Your task to perform on an android device: toggle data saver in the chrome app Image 0: 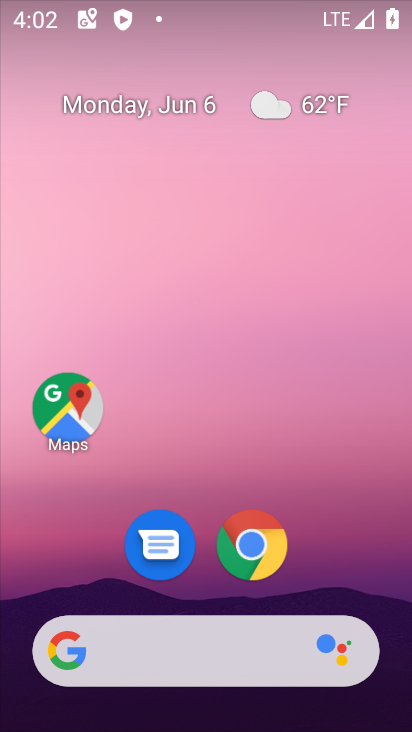
Step 0: click (256, 547)
Your task to perform on an android device: toggle data saver in the chrome app Image 1: 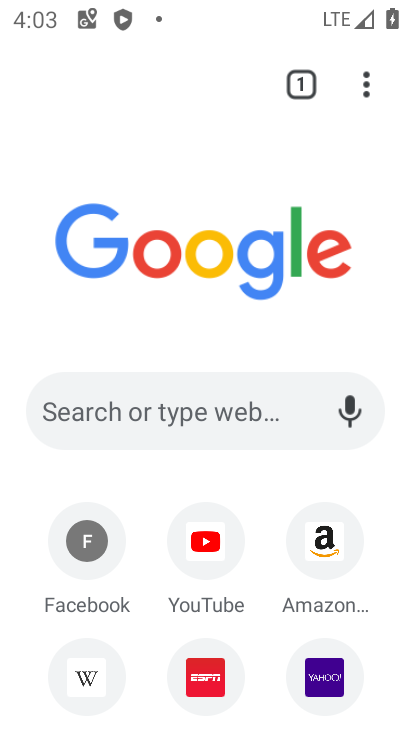
Step 1: click (365, 92)
Your task to perform on an android device: toggle data saver in the chrome app Image 2: 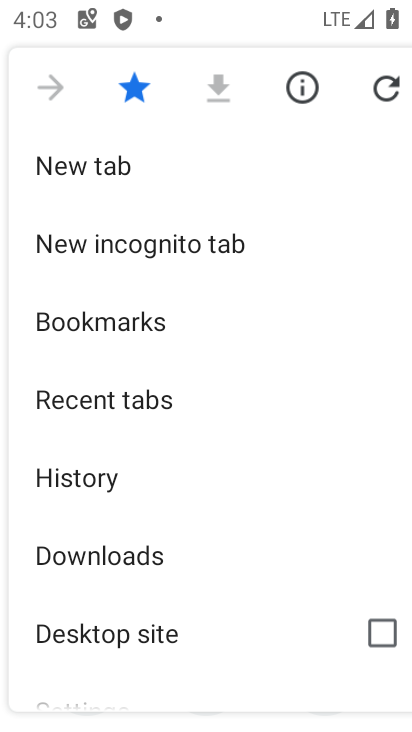
Step 2: drag from (125, 666) to (124, 218)
Your task to perform on an android device: toggle data saver in the chrome app Image 3: 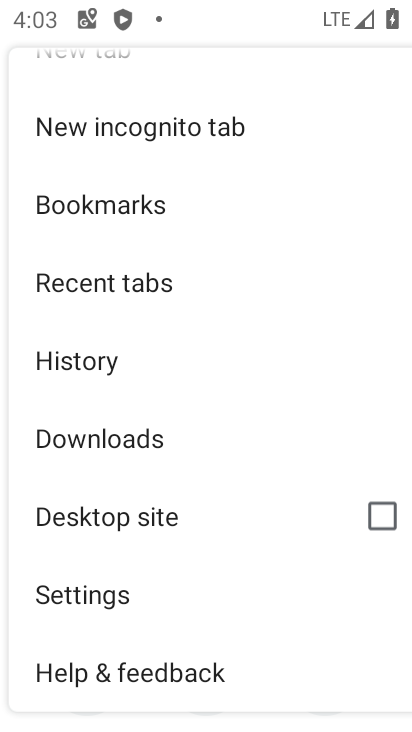
Step 3: click (108, 597)
Your task to perform on an android device: toggle data saver in the chrome app Image 4: 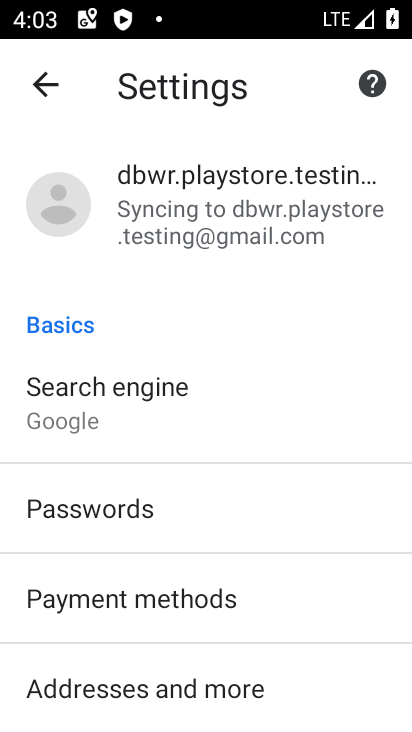
Step 4: drag from (130, 719) to (124, 333)
Your task to perform on an android device: toggle data saver in the chrome app Image 5: 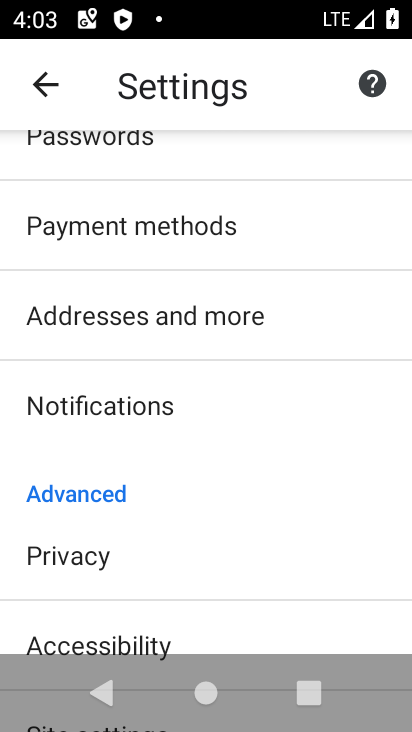
Step 5: drag from (234, 615) to (236, 204)
Your task to perform on an android device: toggle data saver in the chrome app Image 6: 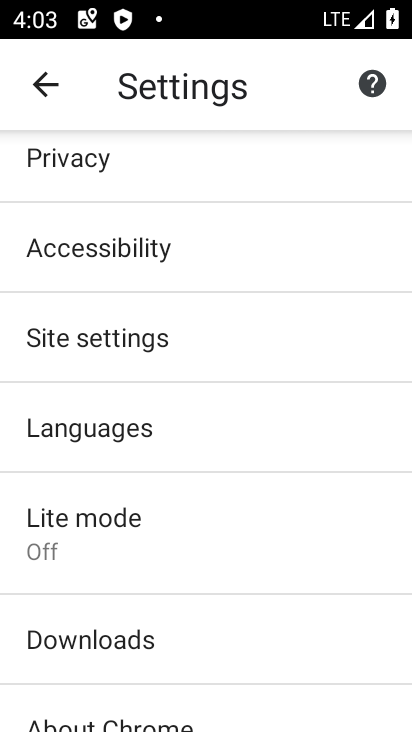
Step 6: click (59, 518)
Your task to perform on an android device: toggle data saver in the chrome app Image 7: 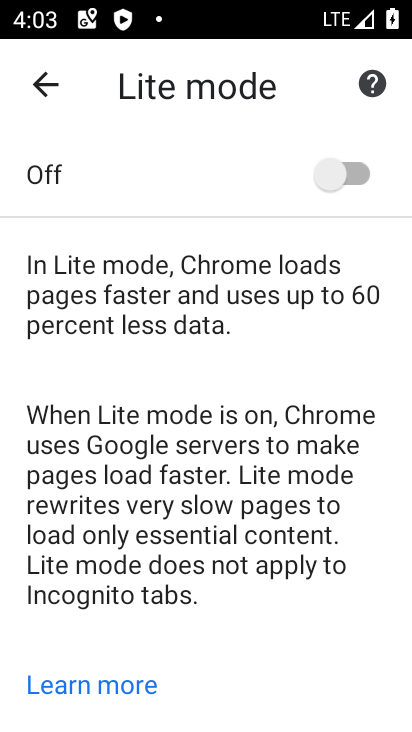
Step 7: click (358, 171)
Your task to perform on an android device: toggle data saver in the chrome app Image 8: 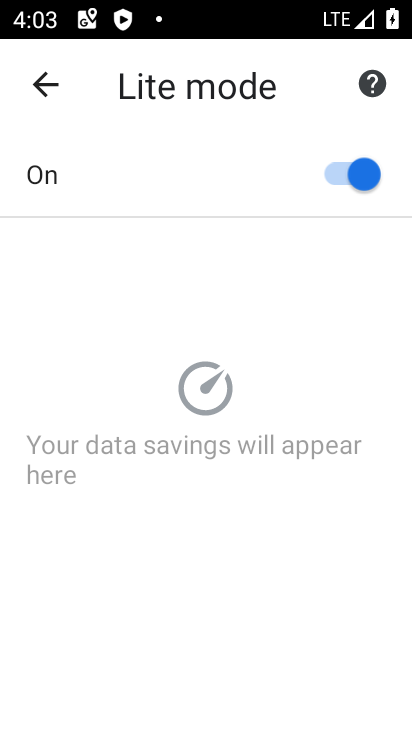
Step 8: task complete